Your task to perform on an android device: change timer sound Image 0: 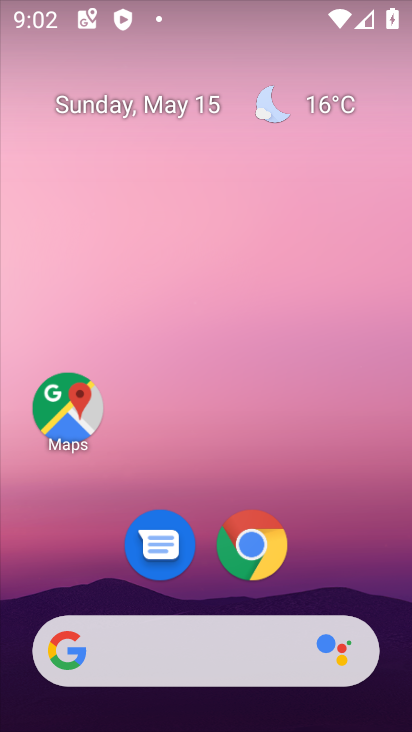
Step 0: drag from (325, 544) to (218, 45)
Your task to perform on an android device: change timer sound Image 1: 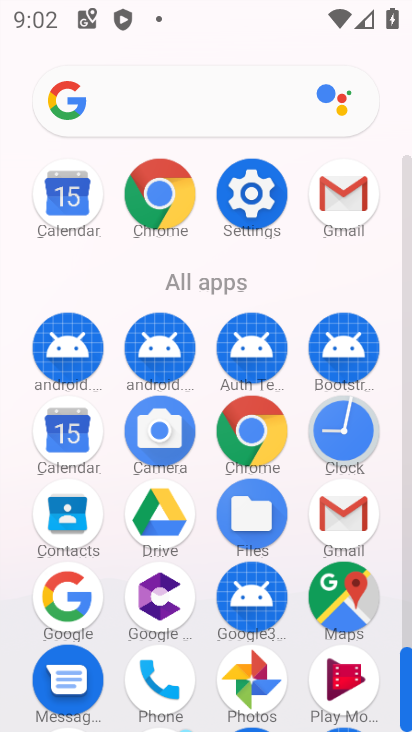
Step 1: click (343, 429)
Your task to perform on an android device: change timer sound Image 2: 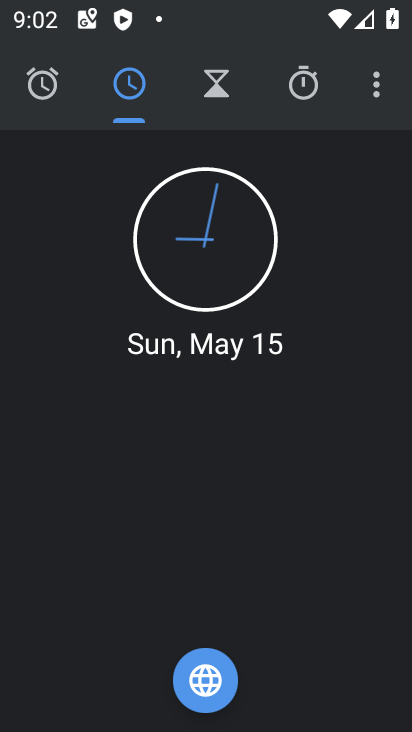
Step 2: click (378, 88)
Your task to perform on an android device: change timer sound Image 3: 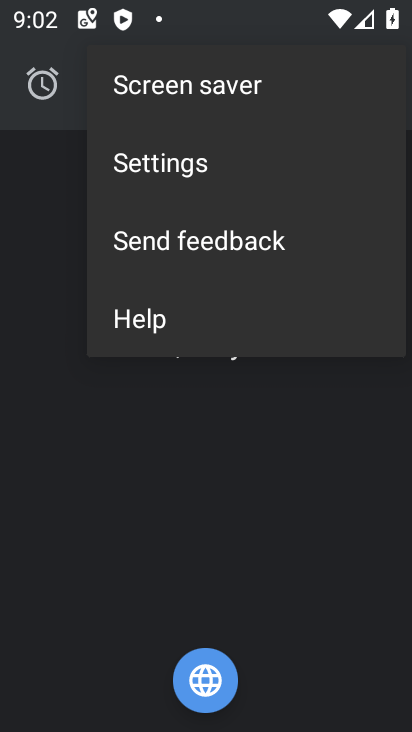
Step 3: click (185, 168)
Your task to perform on an android device: change timer sound Image 4: 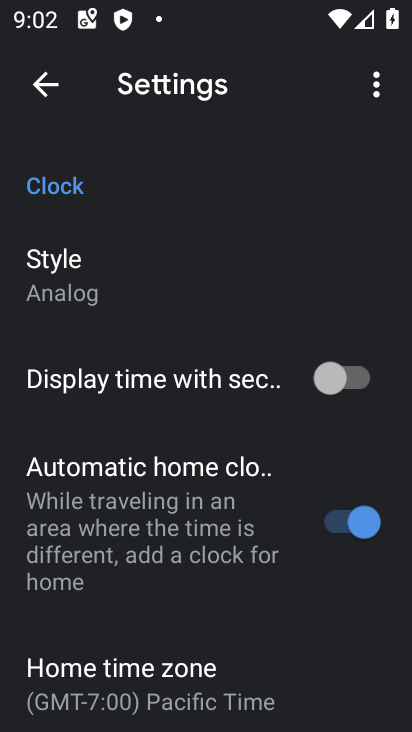
Step 4: drag from (142, 598) to (167, 445)
Your task to perform on an android device: change timer sound Image 5: 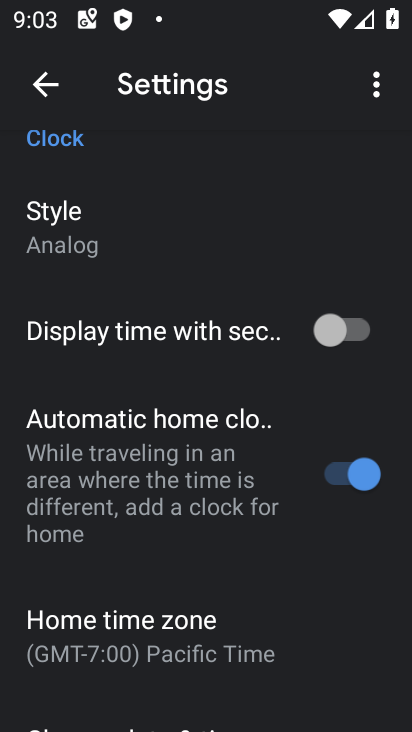
Step 5: drag from (129, 578) to (169, 426)
Your task to perform on an android device: change timer sound Image 6: 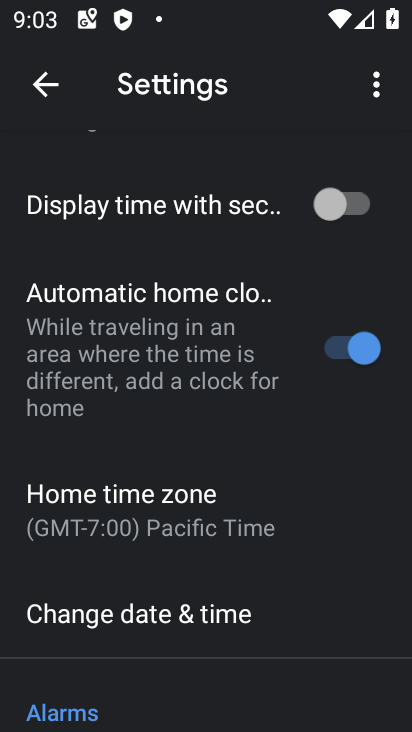
Step 6: drag from (129, 563) to (150, 428)
Your task to perform on an android device: change timer sound Image 7: 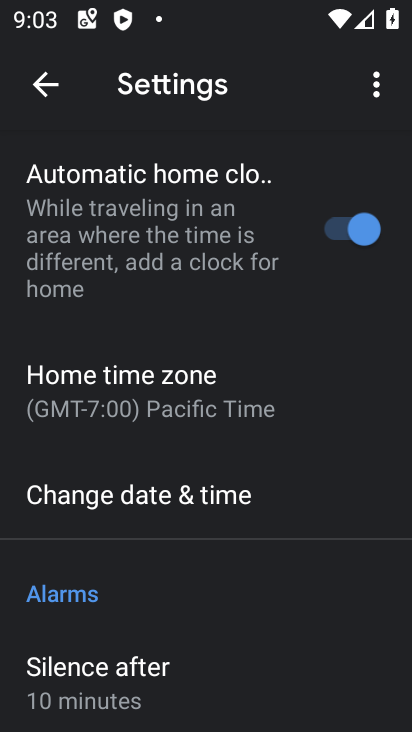
Step 7: drag from (120, 572) to (167, 471)
Your task to perform on an android device: change timer sound Image 8: 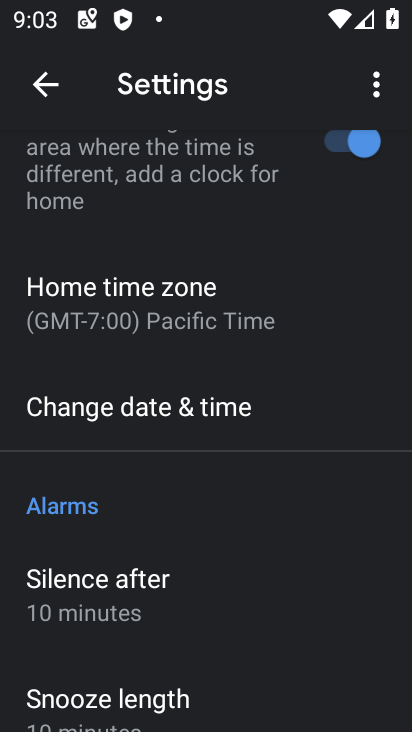
Step 8: drag from (129, 642) to (203, 518)
Your task to perform on an android device: change timer sound Image 9: 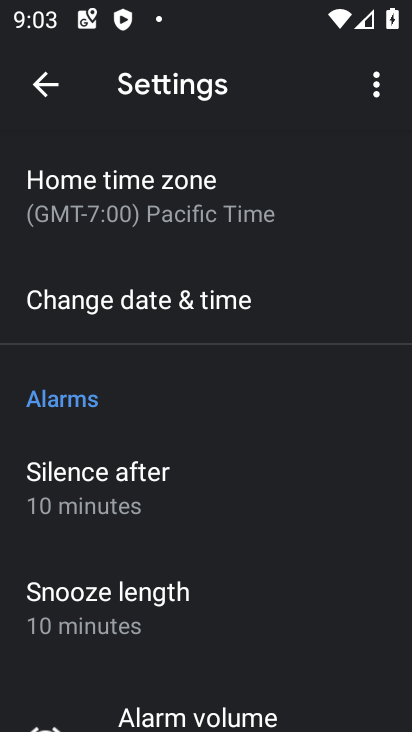
Step 9: drag from (100, 656) to (180, 527)
Your task to perform on an android device: change timer sound Image 10: 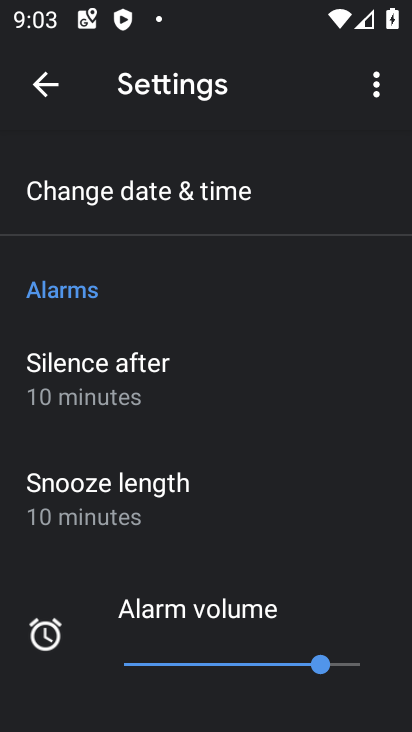
Step 10: drag from (82, 639) to (161, 512)
Your task to perform on an android device: change timer sound Image 11: 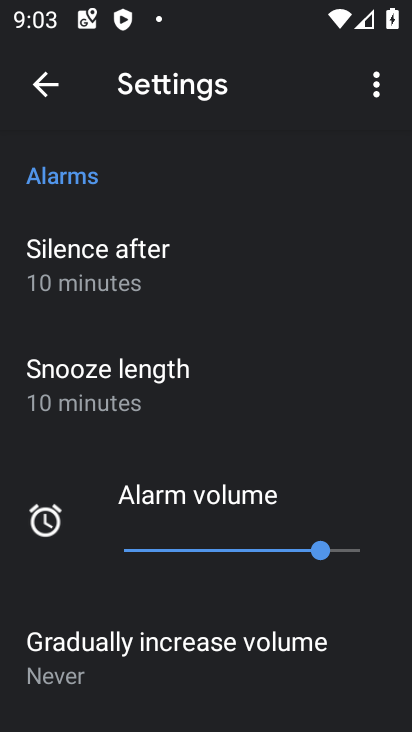
Step 11: drag from (77, 597) to (183, 472)
Your task to perform on an android device: change timer sound Image 12: 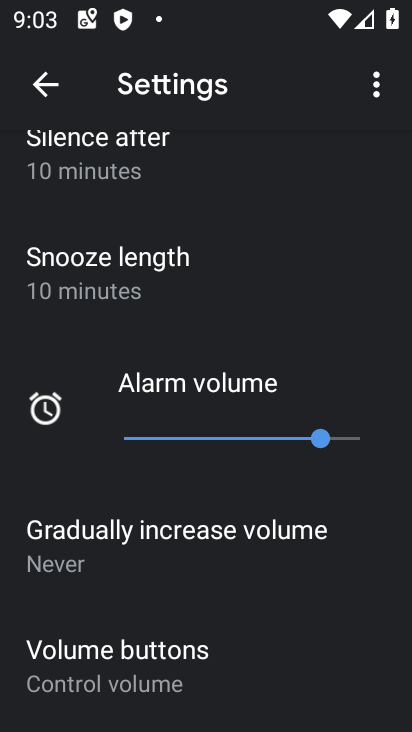
Step 12: drag from (94, 610) to (175, 483)
Your task to perform on an android device: change timer sound Image 13: 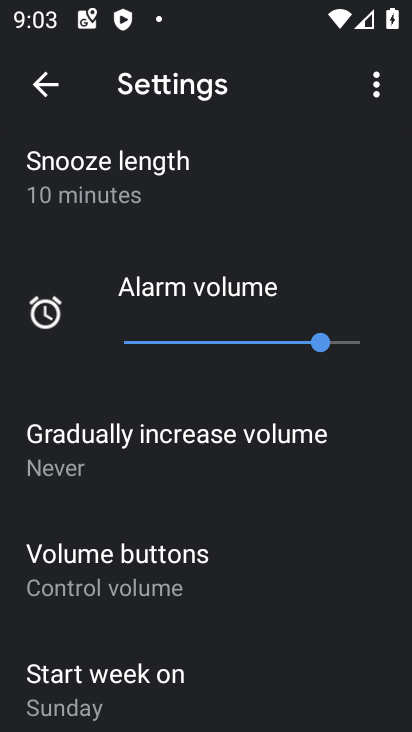
Step 13: drag from (65, 636) to (195, 485)
Your task to perform on an android device: change timer sound Image 14: 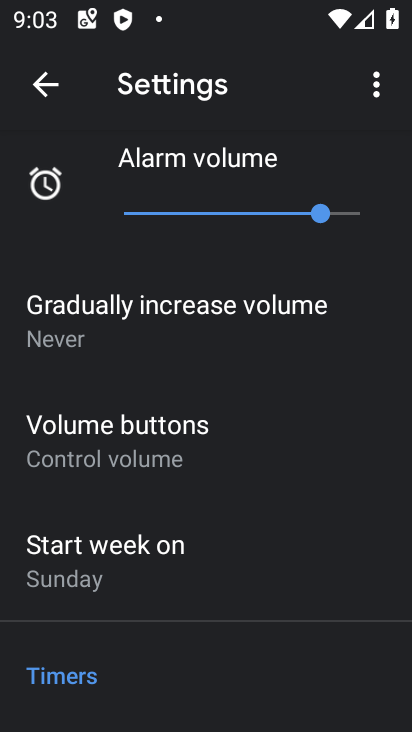
Step 14: drag from (112, 636) to (195, 525)
Your task to perform on an android device: change timer sound Image 15: 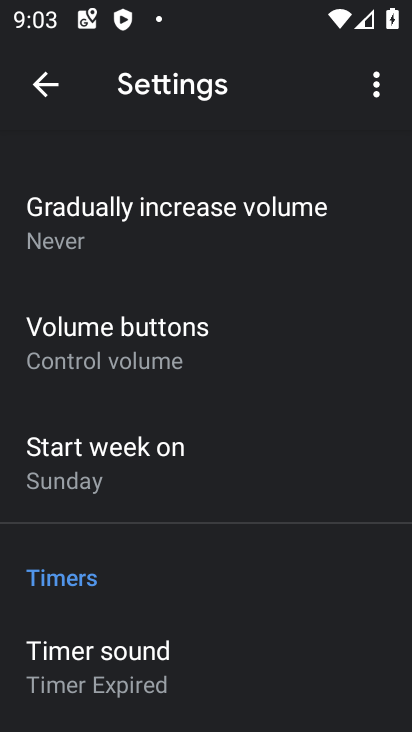
Step 15: drag from (127, 606) to (248, 470)
Your task to perform on an android device: change timer sound Image 16: 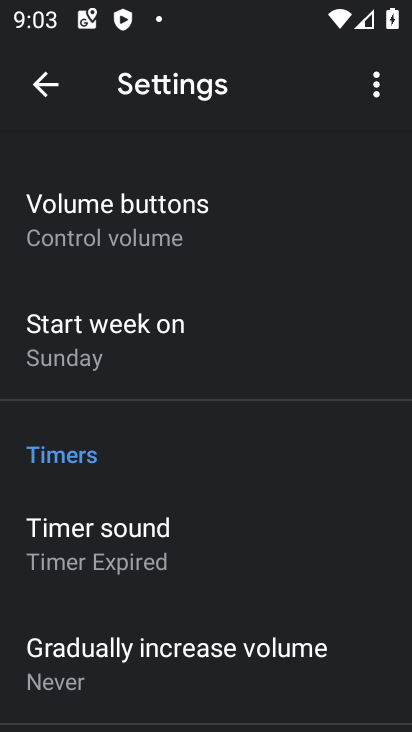
Step 16: click (141, 531)
Your task to perform on an android device: change timer sound Image 17: 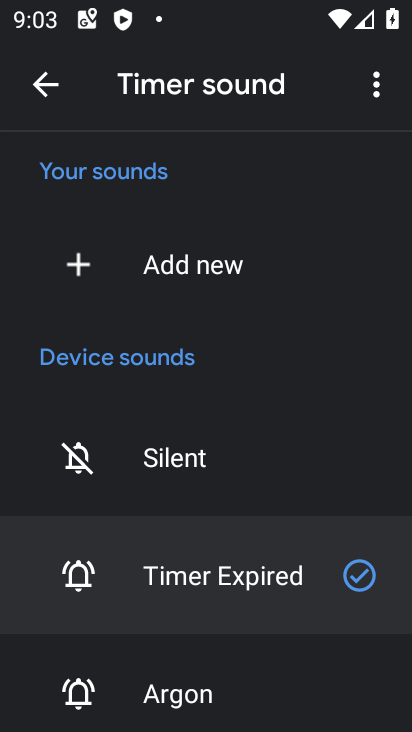
Step 17: drag from (196, 658) to (223, 485)
Your task to perform on an android device: change timer sound Image 18: 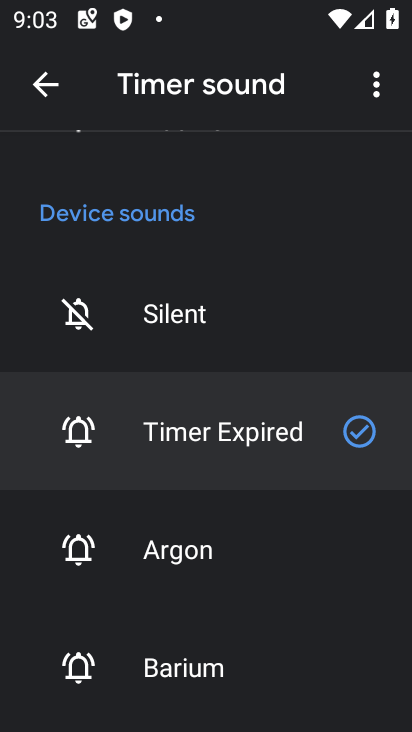
Step 18: drag from (225, 644) to (250, 504)
Your task to perform on an android device: change timer sound Image 19: 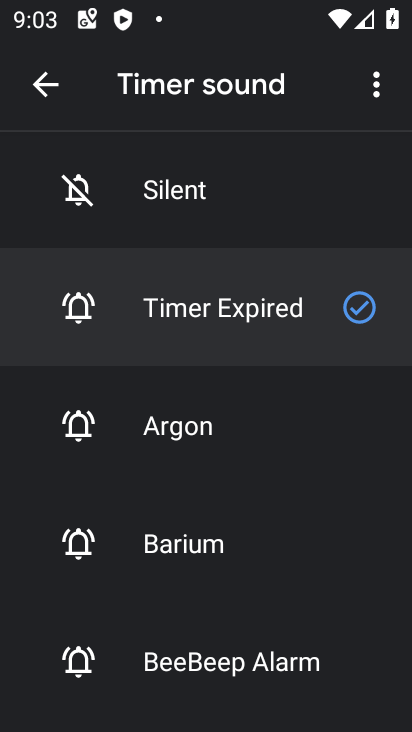
Step 19: click (201, 670)
Your task to perform on an android device: change timer sound Image 20: 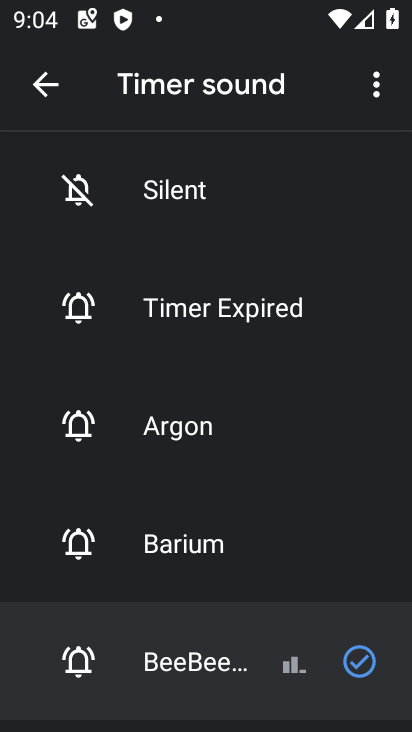
Step 20: task complete